Your task to perform on an android device: turn on showing notifications on the lock screen Image 0: 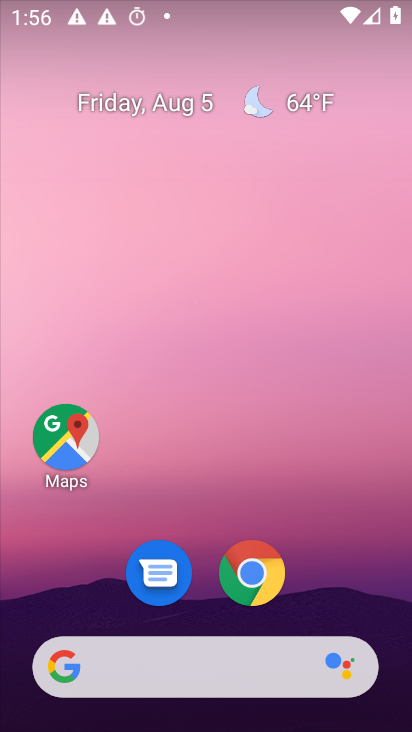
Step 0: press home button
Your task to perform on an android device: turn on showing notifications on the lock screen Image 1: 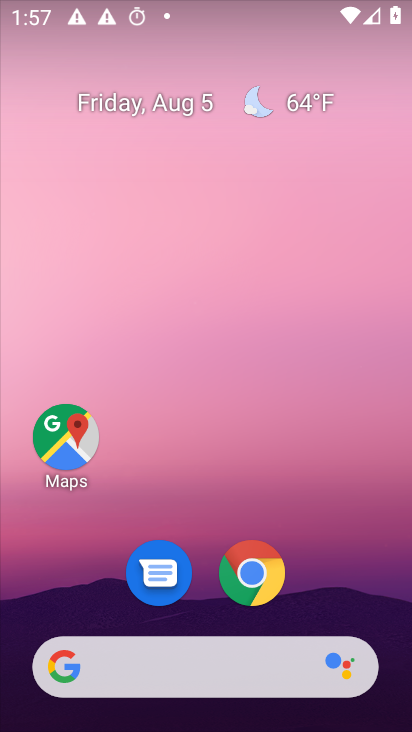
Step 1: drag from (327, 596) to (377, 237)
Your task to perform on an android device: turn on showing notifications on the lock screen Image 2: 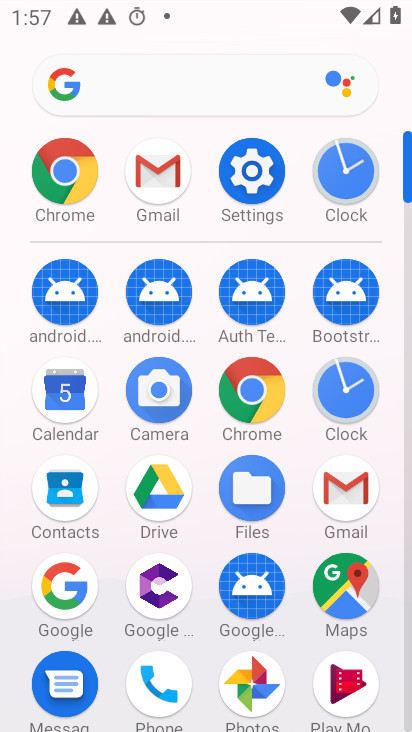
Step 2: click (262, 183)
Your task to perform on an android device: turn on showing notifications on the lock screen Image 3: 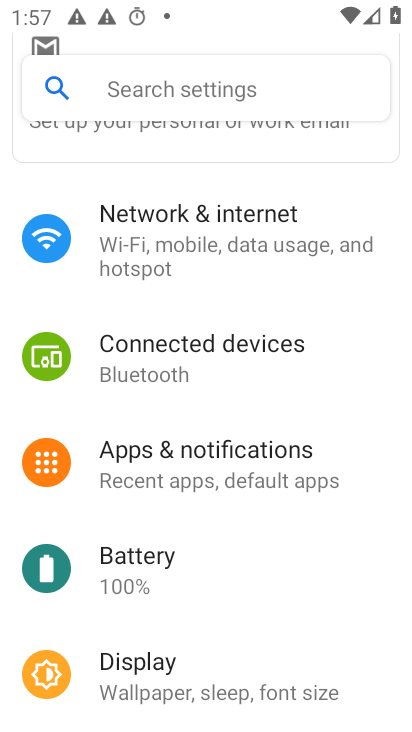
Step 3: drag from (360, 539) to (371, 453)
Your task to perform on an android device: turn on showing notifications on the lock screen Image 4: 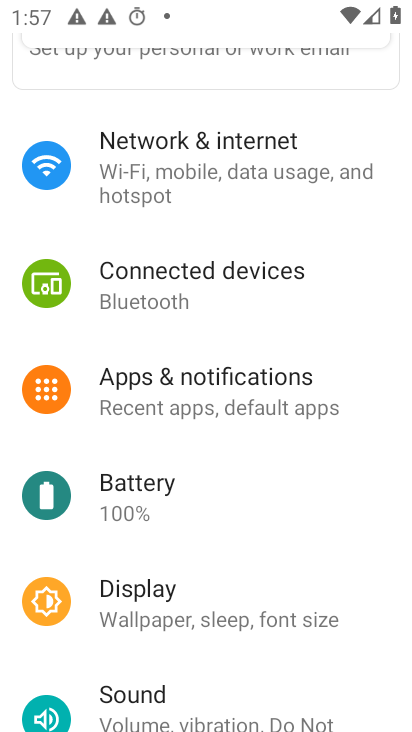
Step 4: drag from (374, 614) to (388, 495)
Your task to perform on an android device: turn on showing notifications on the lock screen Image 5: 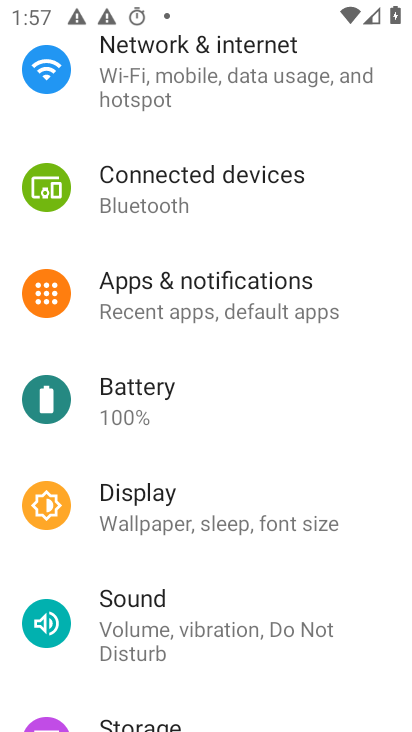
Step 5: drag from (371, 644) to (379, 519)
Your task to perform on an android device: turn on showing notifications on the lock screen Image 6: 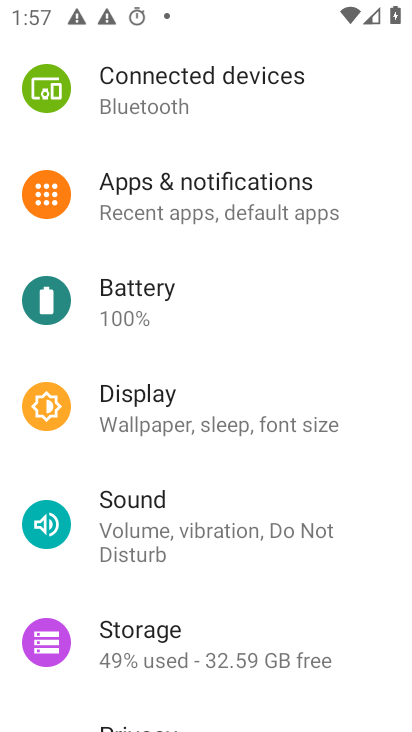
Step 6: drag from (364, 585) to (362, 488)
Your task to perform on an android device: turn on showing notifications on the lock screen Image 7: 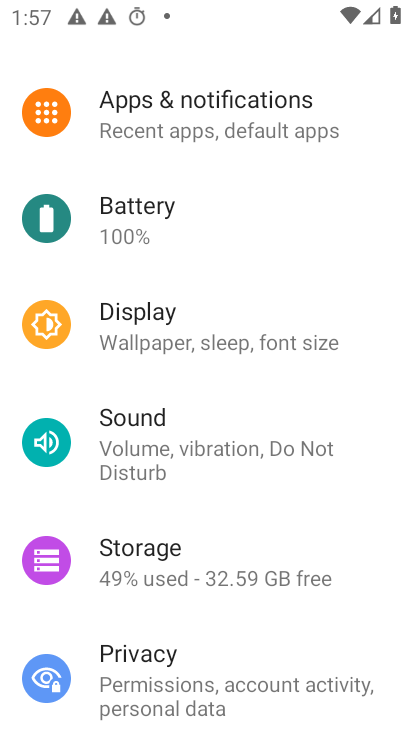
Step 7: drag from (363, 621) to (370, 464)
Your task to perform on an android device: turn on showing notifications on the lock screen Image 8: 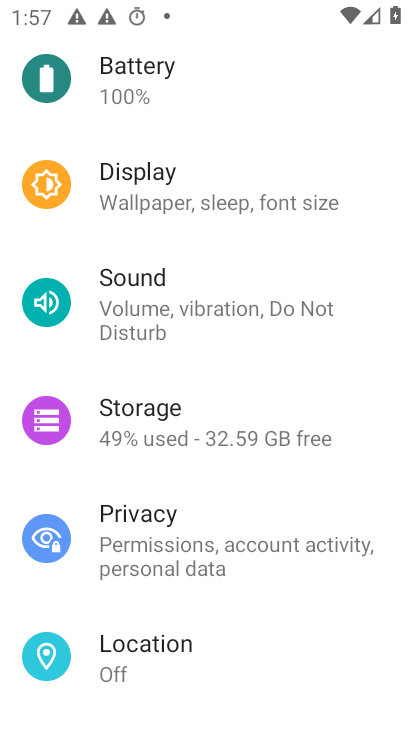
Step 8: drag from (360, 610) to (362, 477)
Your task to perform on an android device: turn on showing notifications on the lock screen Image 9: 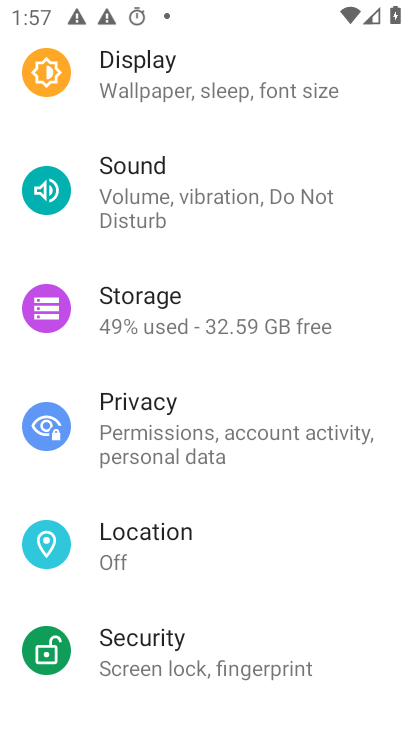
Step 9: drag from (336, 596) to (344, 450)
Your task to perform on an android device: turn on showing notifications on the lock screen Image 10: 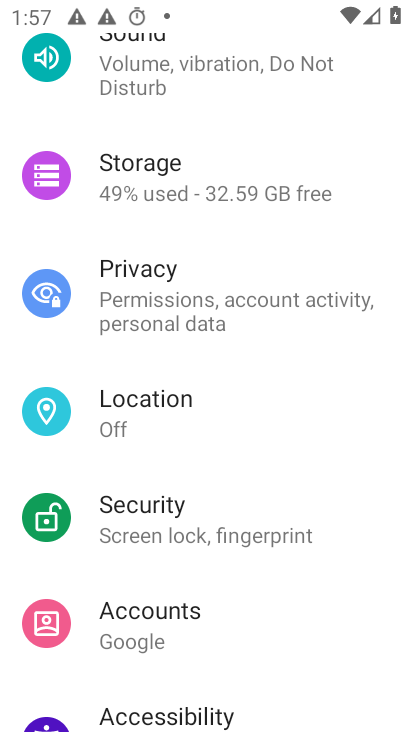
Step 10: drag from (345, 631) to (347, 458)
Your task to perform on an android device: turn on showing notifications on the lock screen Image 11: 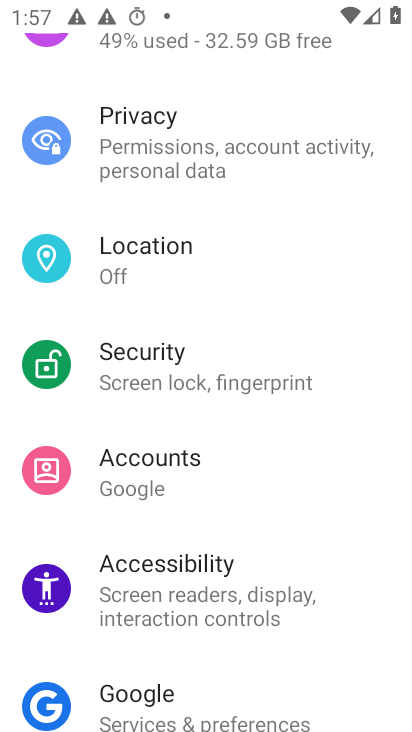
Step 11: drag from (353, 284) to (353, 413)
Your task to perform on an android device: turn on showing notifications on the lock screen Image 12: 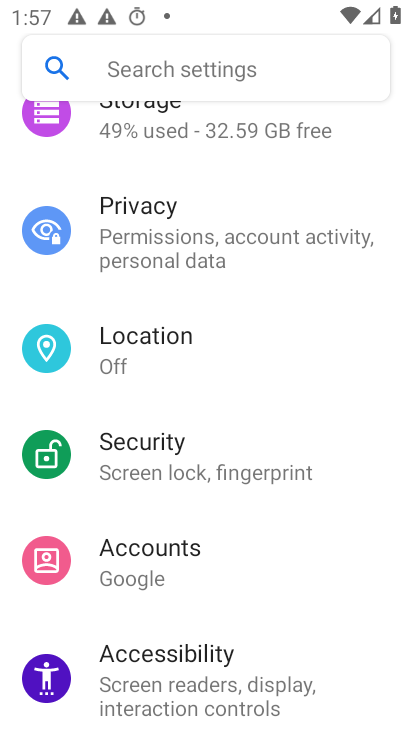
Step 12: drag from (348, 280) to (347, 384)
Your task to perform on an android device: turn on showing notifications on the lock screen Image 13: 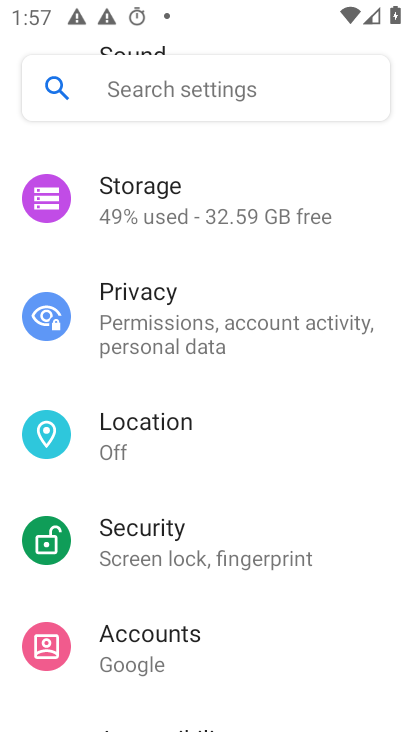
Step 13: drag from (361, 247) to (365, 397)
Your task to perform on an android device: turn on showing notifications on the lock screen Image 14: 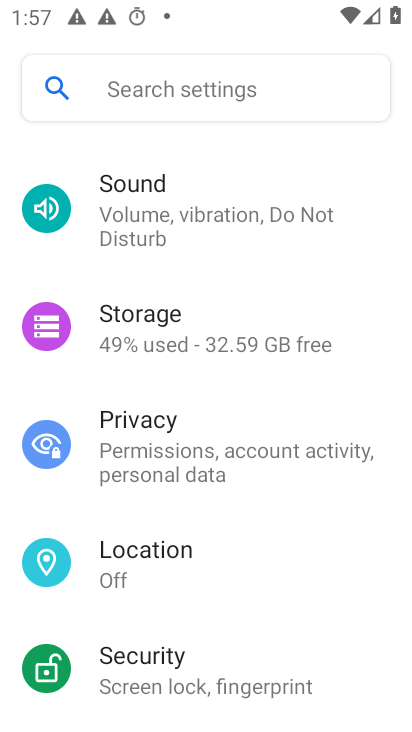
Step 14: drag from (357, 208) to (357, 324)
Your task to perform on an android device: turn on showing notifications on the lock screen Image 15: 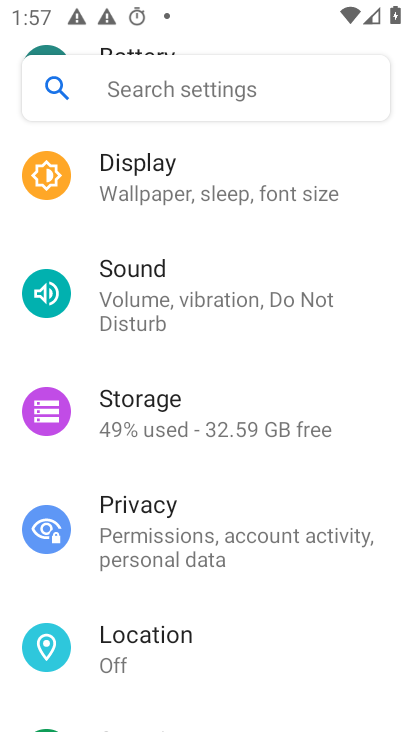
Step 15: drag from (373, 176) to (376, 334)
Your task to perform on an android device: turn on showing notifications on the lock screen Image 16: 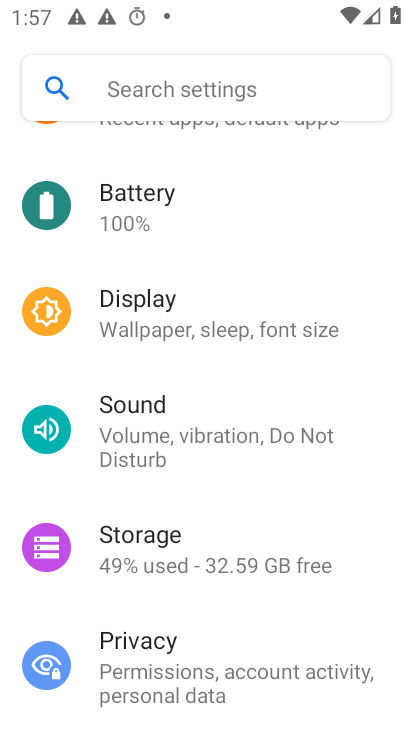
Step 16: drag from (372, 154) to (360, 314)
Your task to perform on an android device: turn on showing notifications on the lock screen Image 17: 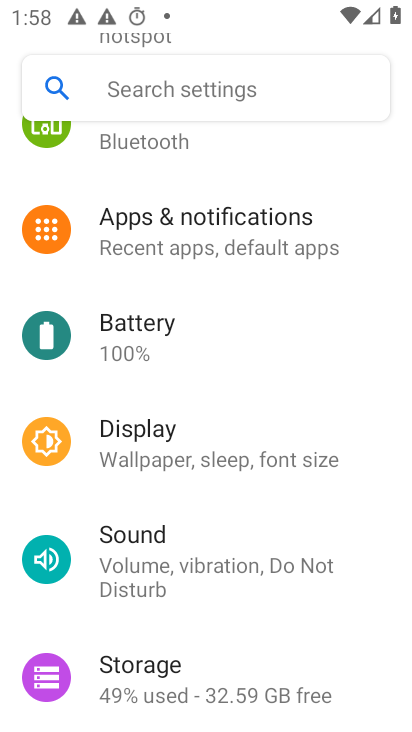
Step 17: drag from (370, 135) to (368, 332)
Your task to perform on an android device: turn on showing notifications on the lock screen Image 18: 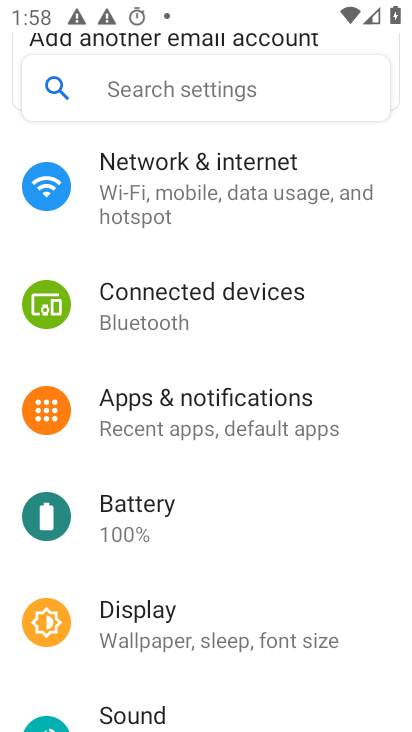
Step 18: click (314, 423)
Your task to perform on an android device: turn on showing notifications on the lock screen Image 19: 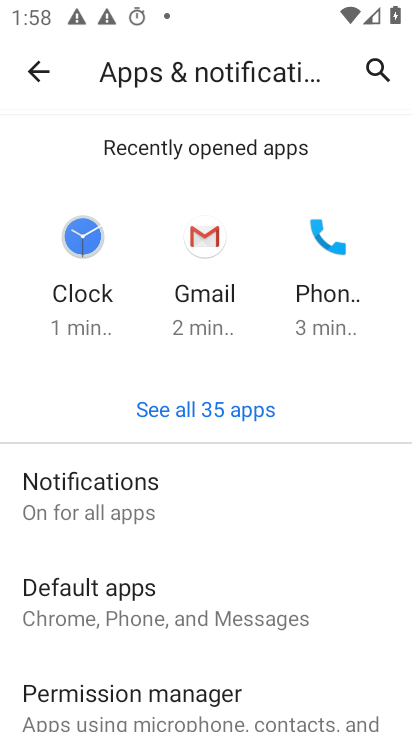
Step 19: click (134, 503)
Your task to perform on an android device: turn on showing notifications on the lock screen Image 20: 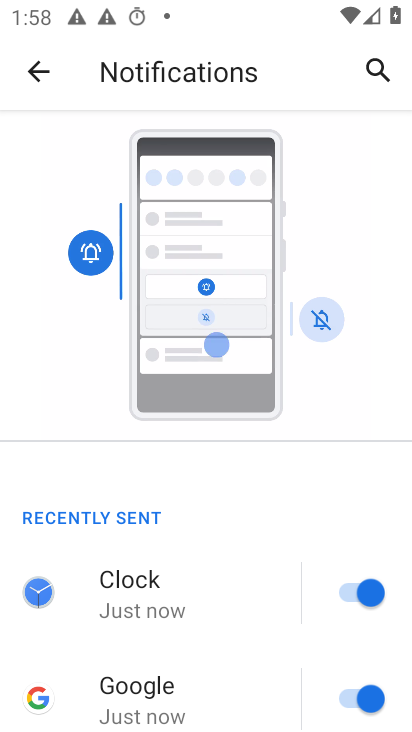
Step 20: drag from (224, 620) to (229, 448)
Your task to perform on an android device: turn on showing notifications on the lock screen Image 21: 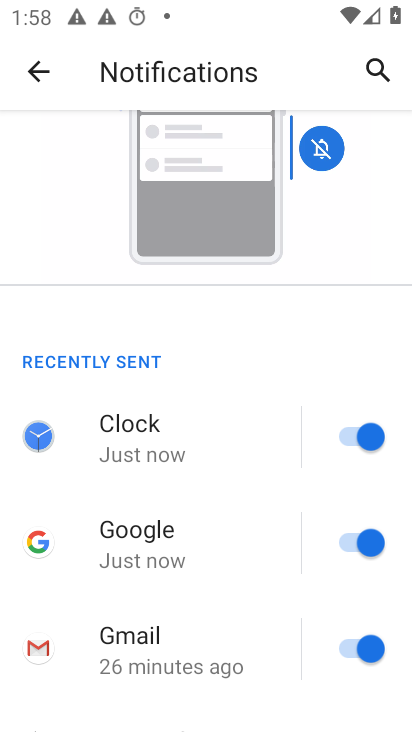
Step 21: drag from (225, 617) to (222, 435)
Your task to perform on an android device: turn on showing notifications on the lock screen Image 22: 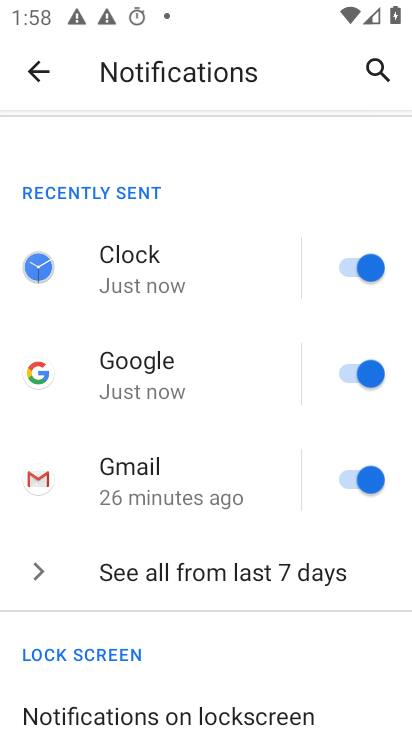
Step 22: drag from (241, 604) to (243, 488)
Your task to perform on an android device: turn on showing notifications on the lock screen Image 23: 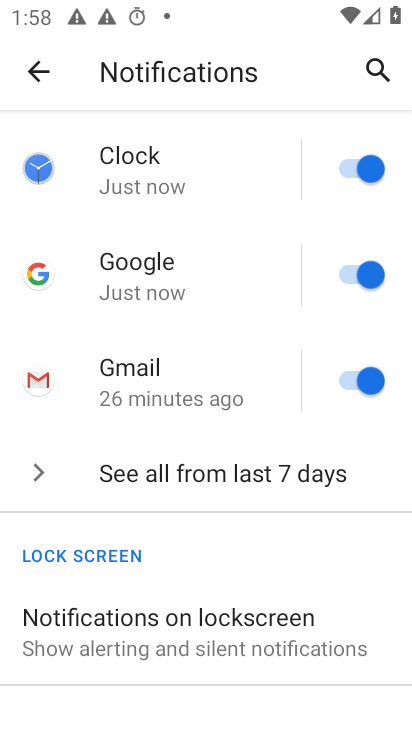
Step 23: drag from (238, 655) to (240, 462)
Your task to perform on an android device: turn on showing notifications on the lock screen Image 24: 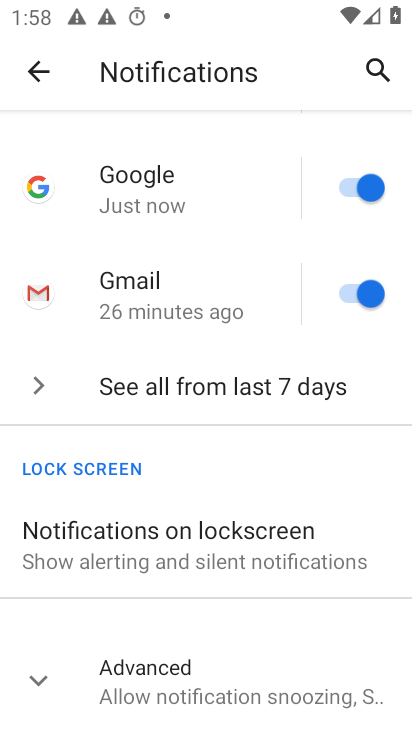
Step 24: click (182, 528)
Your task to perform on an android device: turn on showing notifications on the lock screen Image 25: 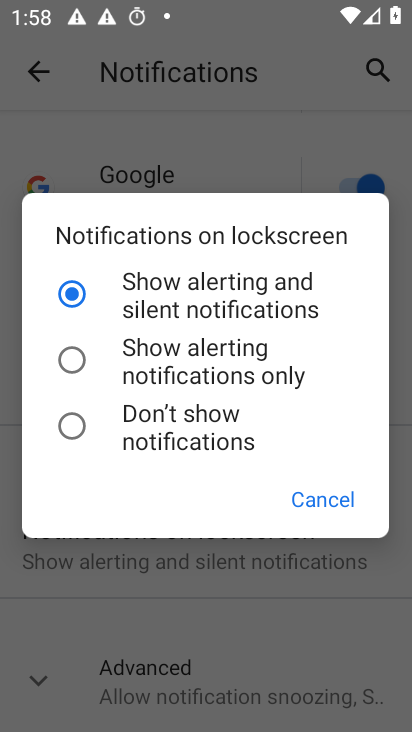
Step 25: task complete